Your task to perform on an android device: open app "Skype" (install if not already installed) Image 0: 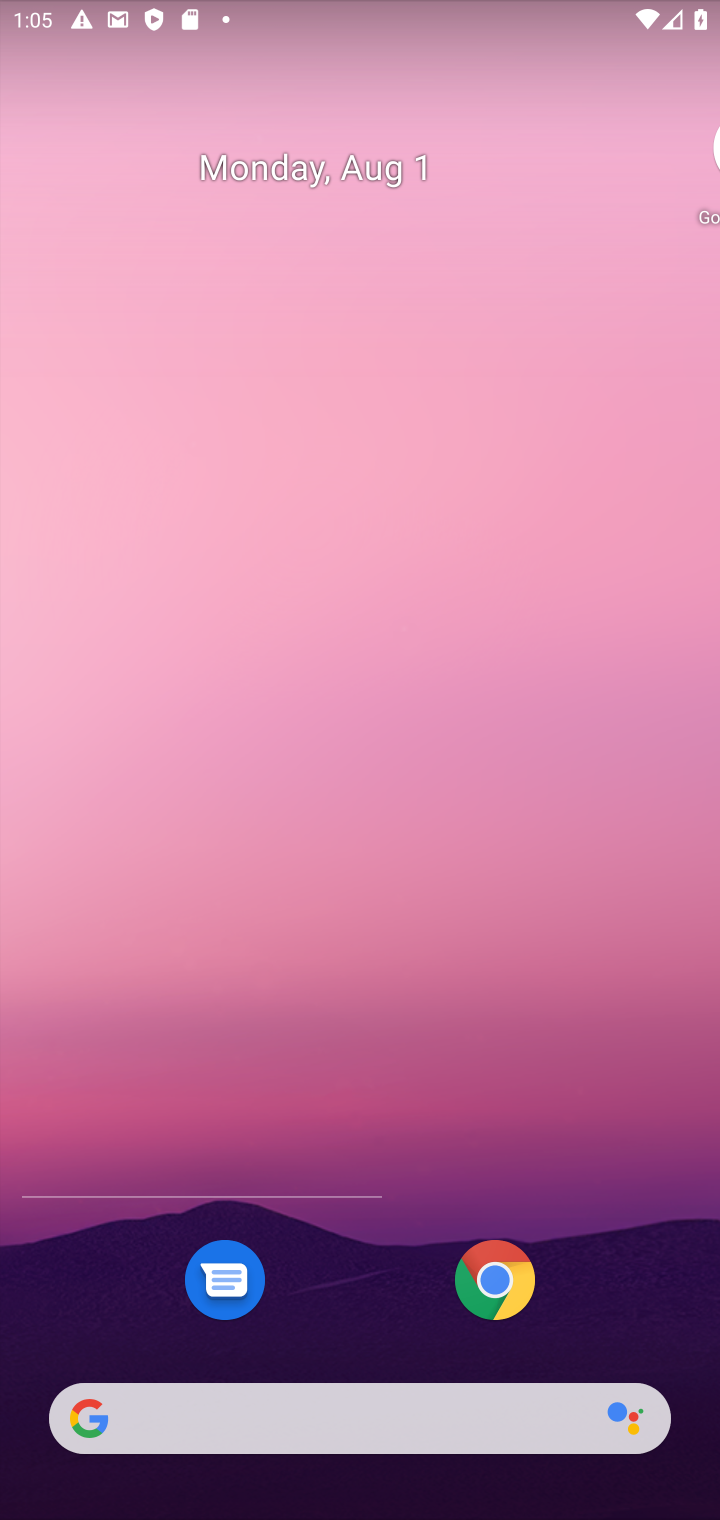
Step 0: press home button
Your task to perform on an android device: open app "Skype" (install if not already installed) Image 1: 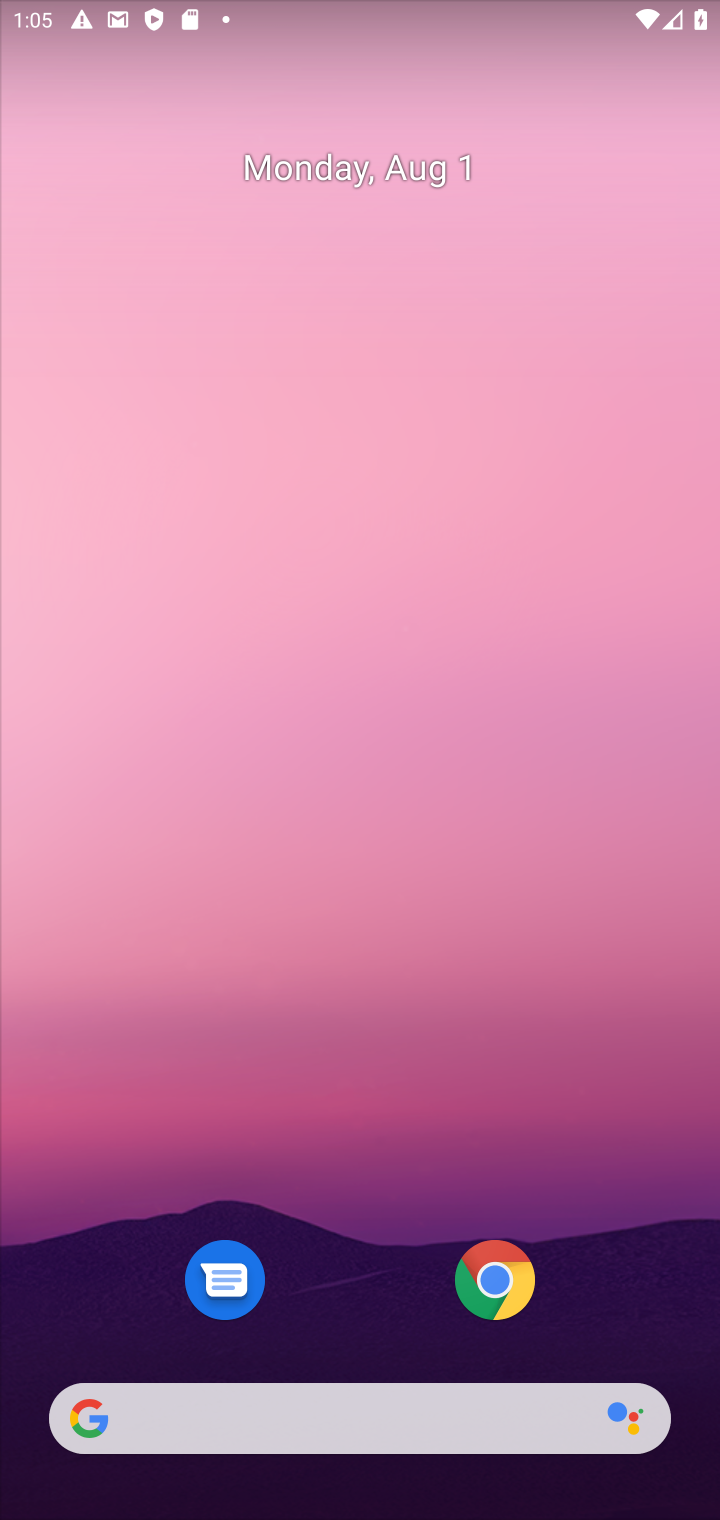
Step 1: drag from (395, 1032) to (460, 116)
Your task to perform on an android device: open app "Skype" (install if not already installed) Image 2: 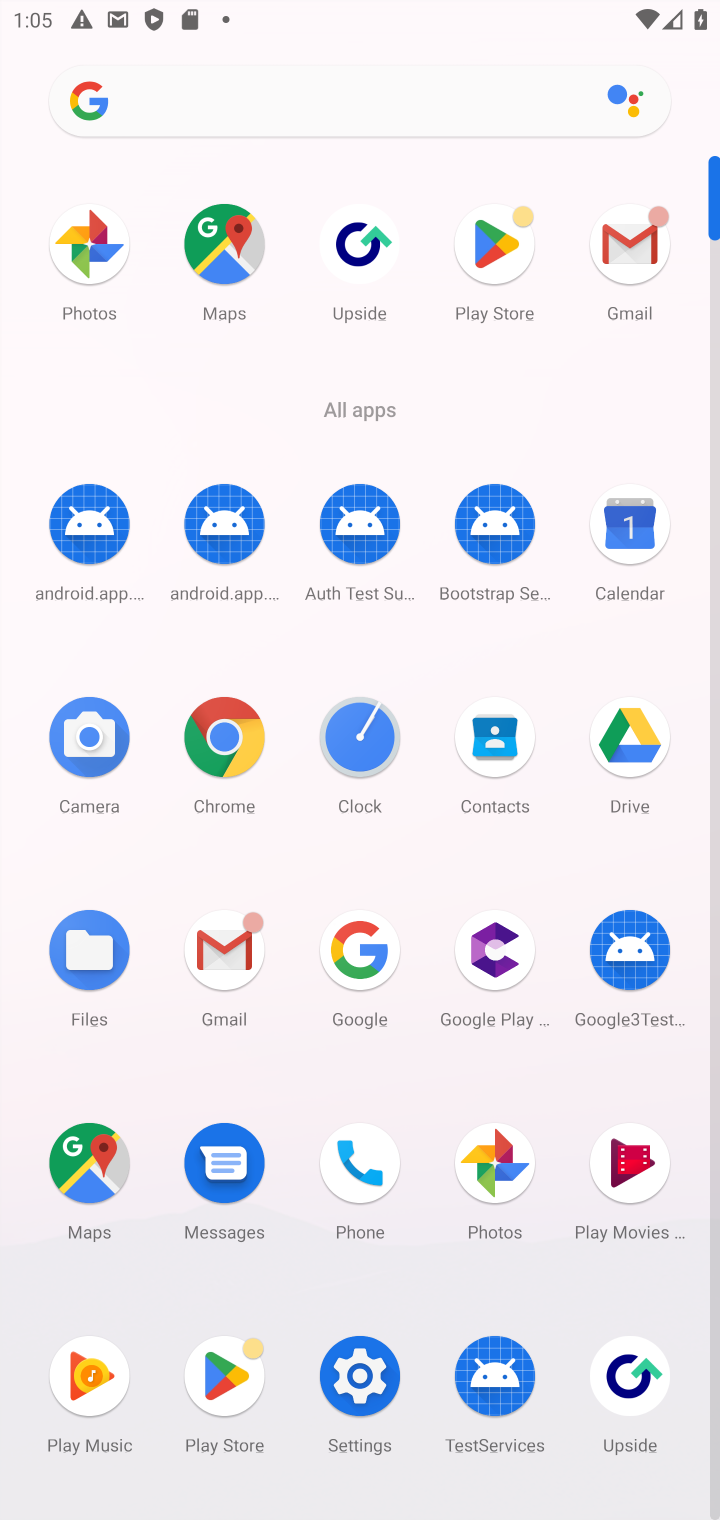
Step 2: click (498, 255)
Your task to perform on an android device: open app "Skype" (install if not already installed) Image 3: 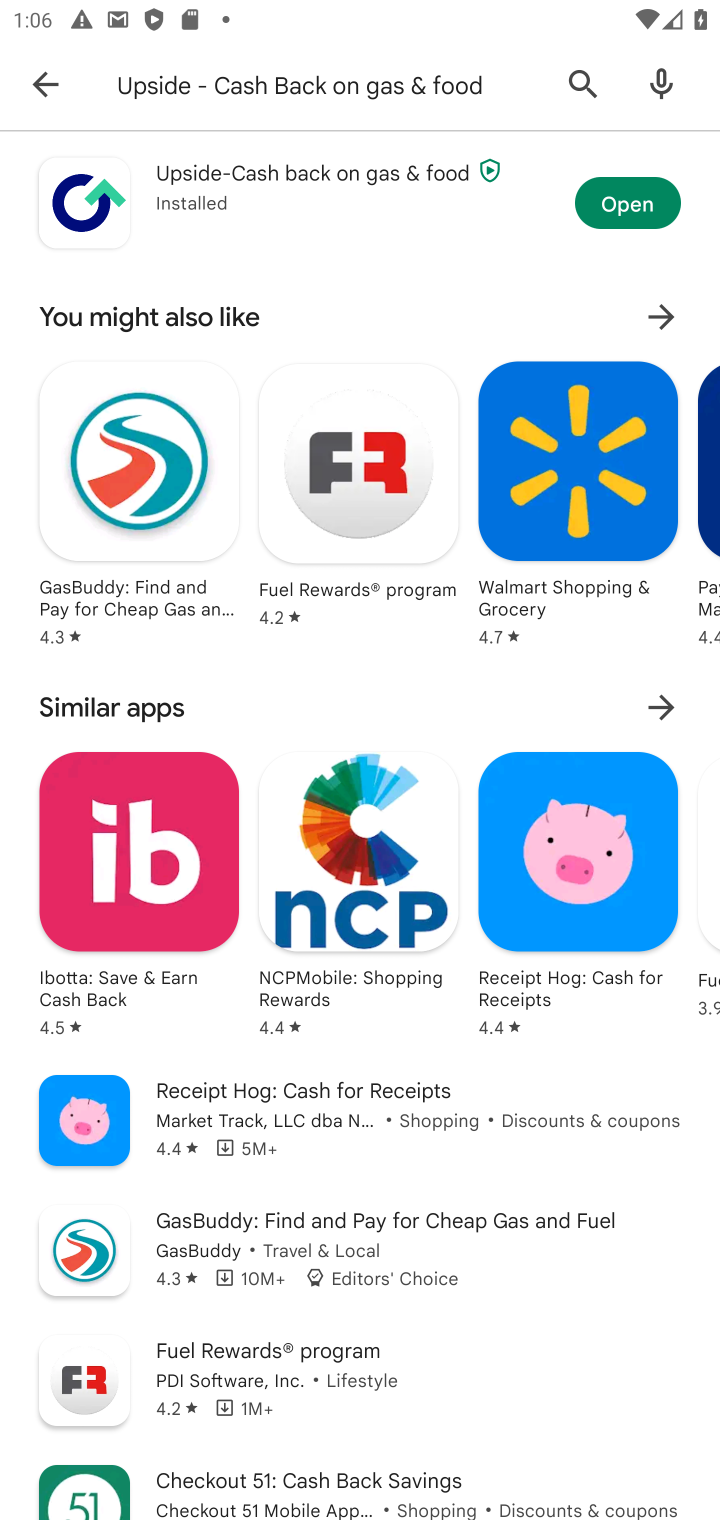
Step 3: press home button
Your task to perform on an android device: open app "Skype" (install if not already installed) Image 4: 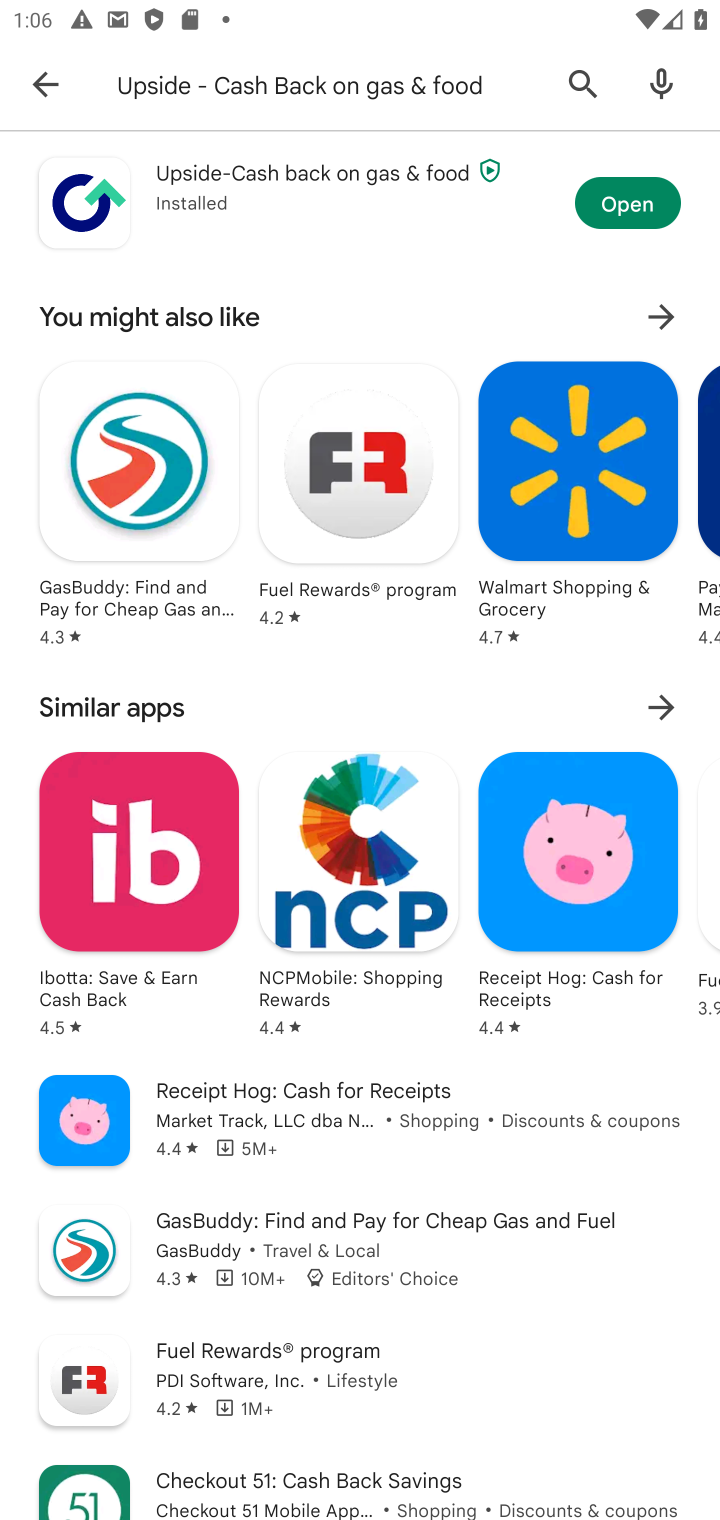
Step 4: press home button
Your task to perform on an android device: open app "Skype" (install if not already installed) Image 5: 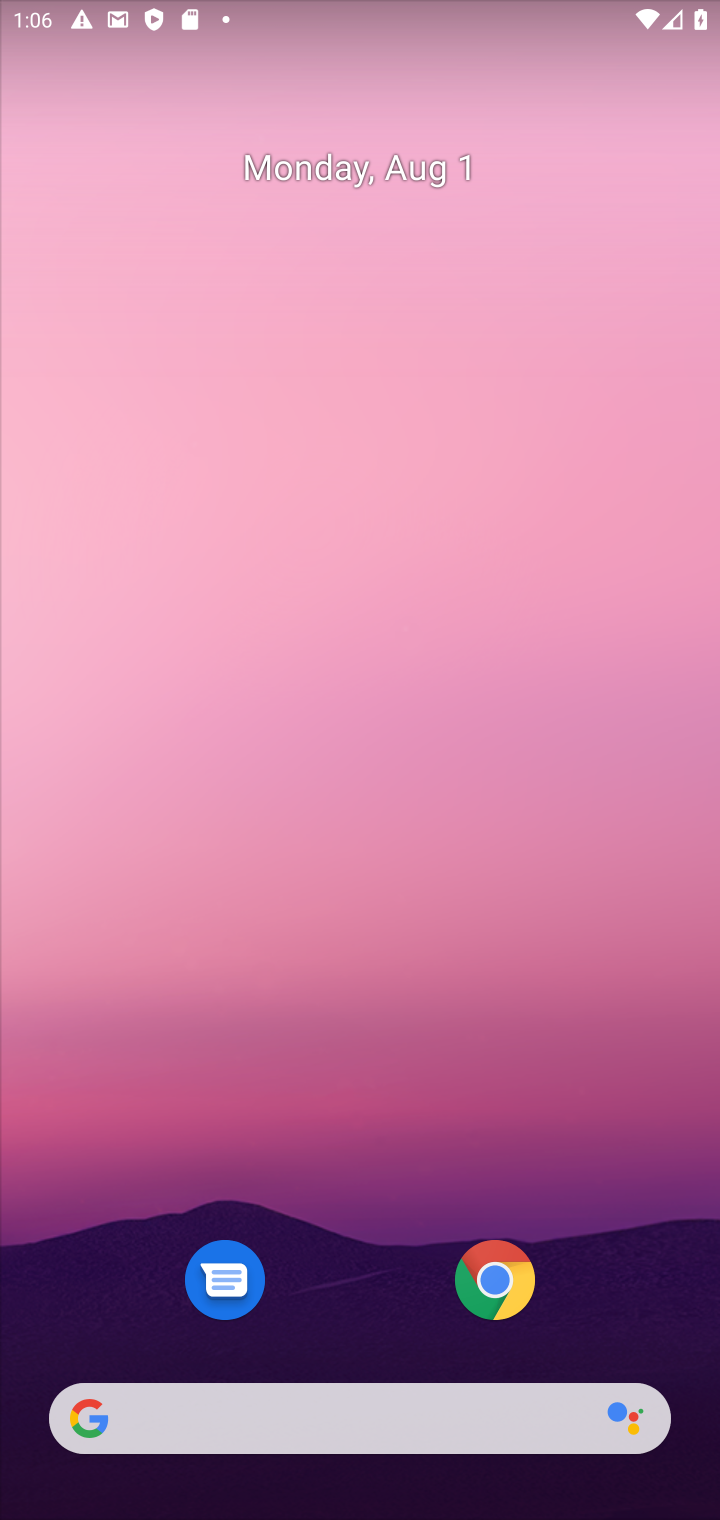
Step 5: drag from (441, 708) to (519, 1)
Your task to perform on an android device: open app "Skype" (install if not already installed) Image 6: 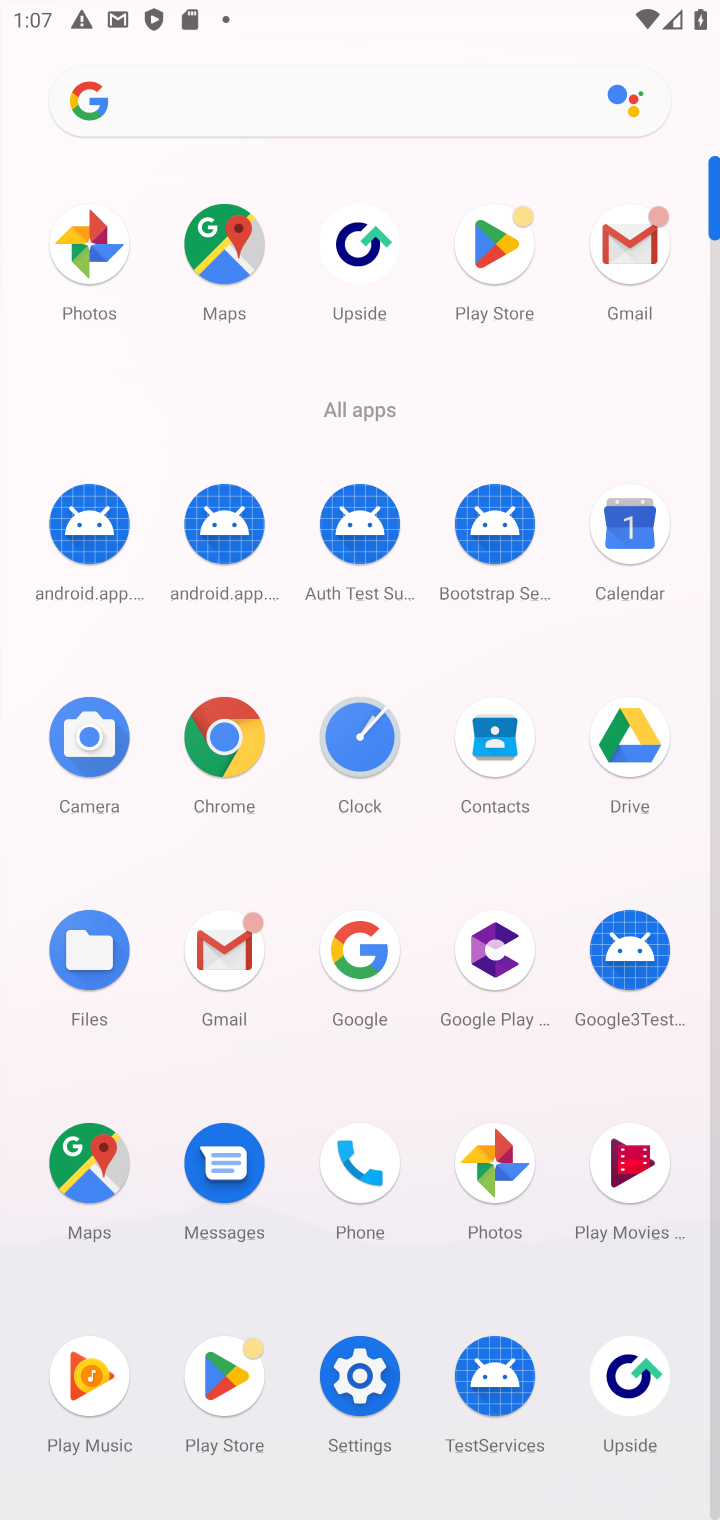
Step 6: click (487, 254)
Your task to perform on an android device: open app "Skype" (install if not already installed) Image 7: 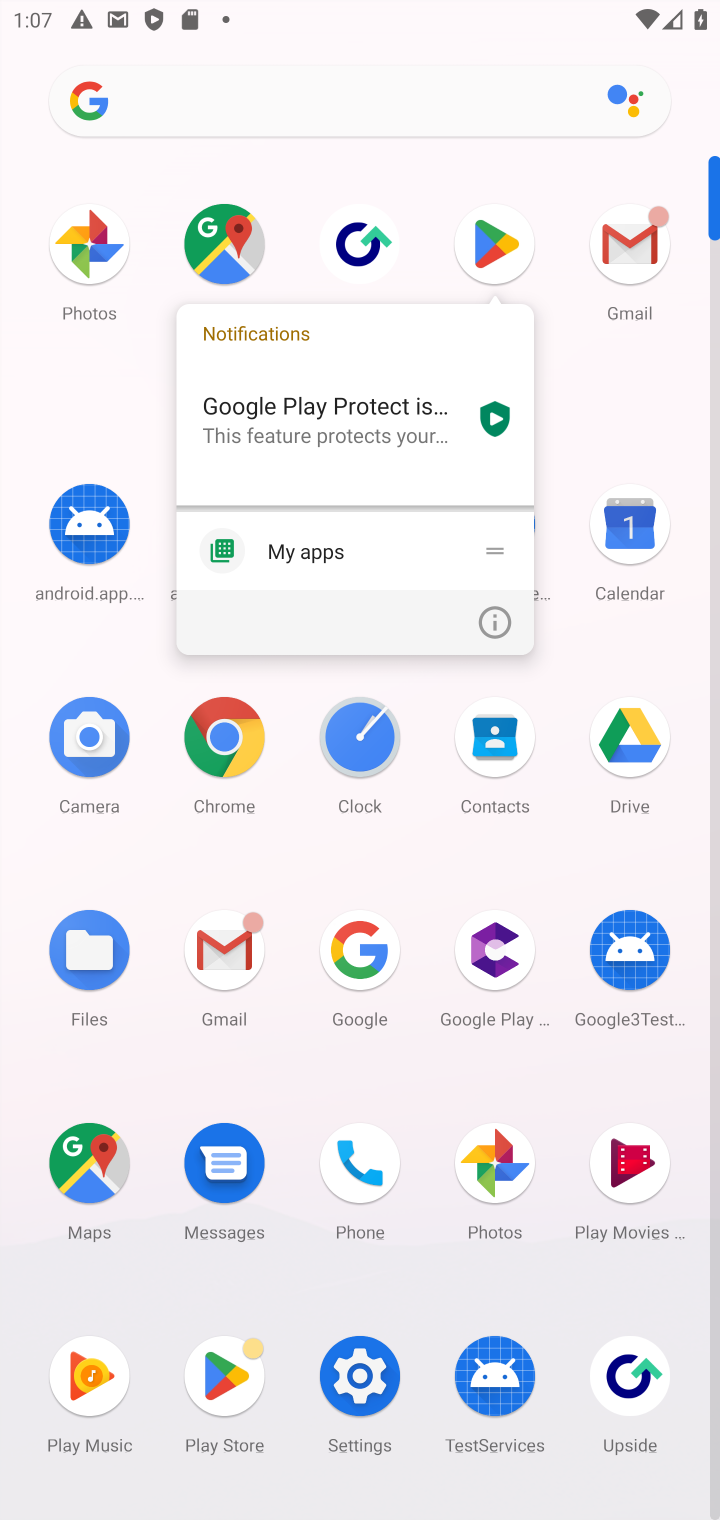
Step 7: click (472, 240)
Your task to perform on an android device: open app "Skype" (install if not already installed) Image 8: 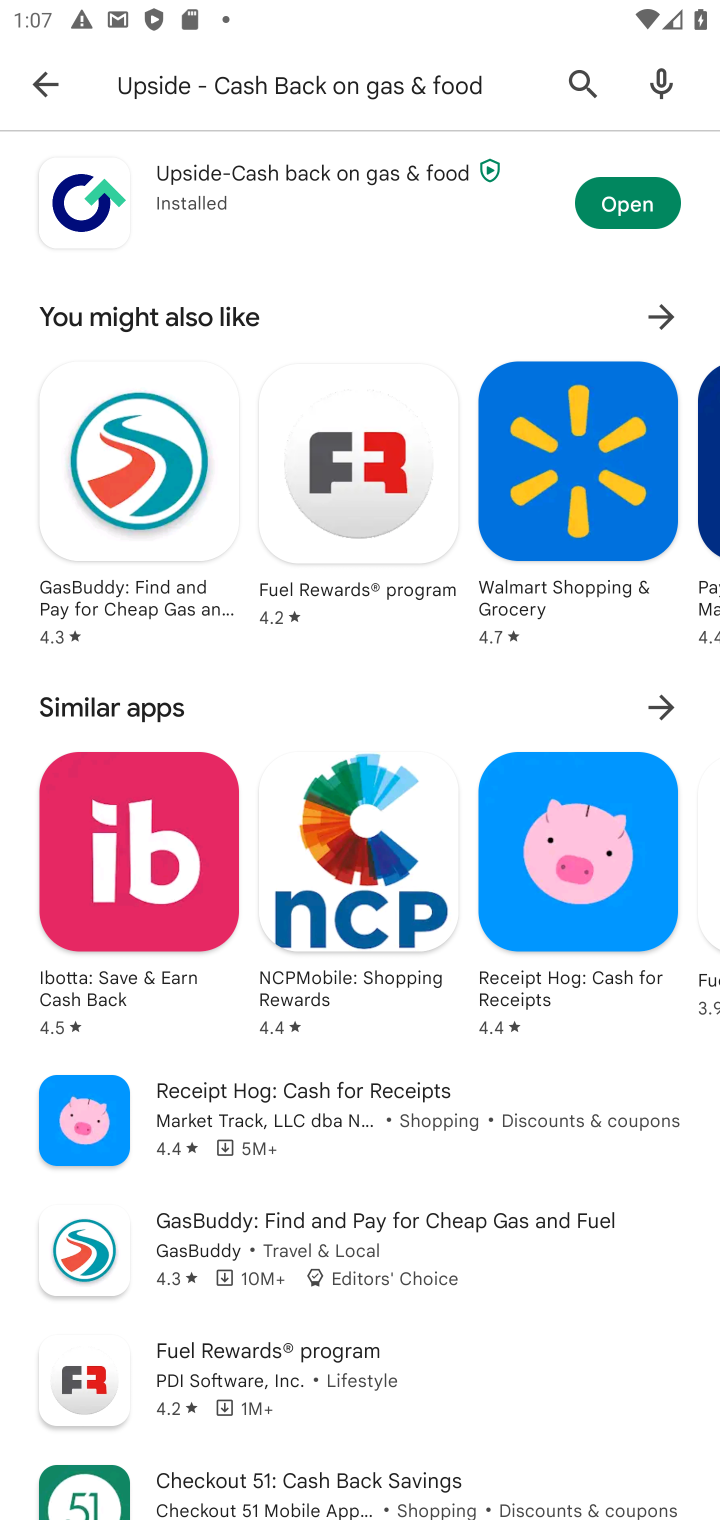
Step 8: click (377, 63)
Your task to perform on an android device: open app "Skype" (install if not already installed) Image 9: 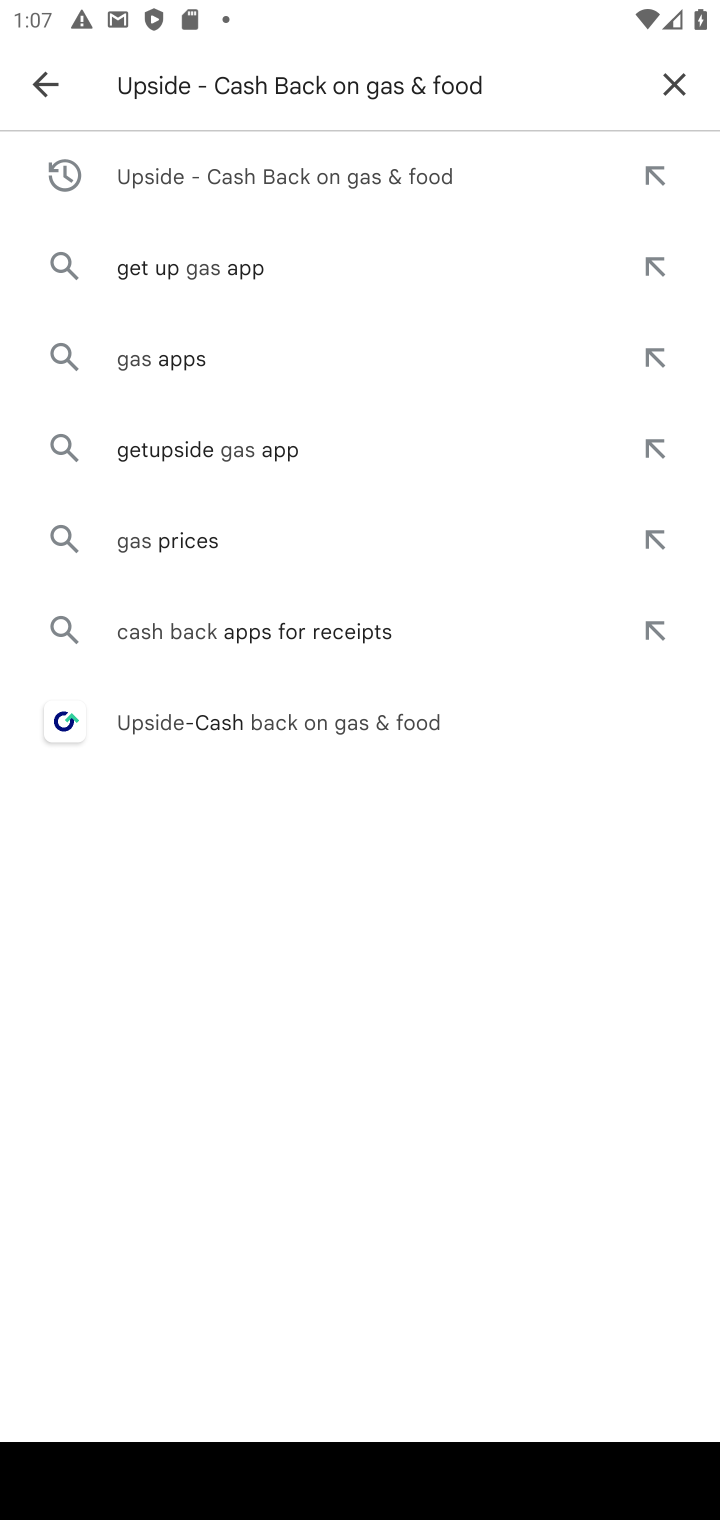
Step 9: click (637, 84)
Your task to perform on an android device: open app "Skype" (install if not already installed) Image 10: 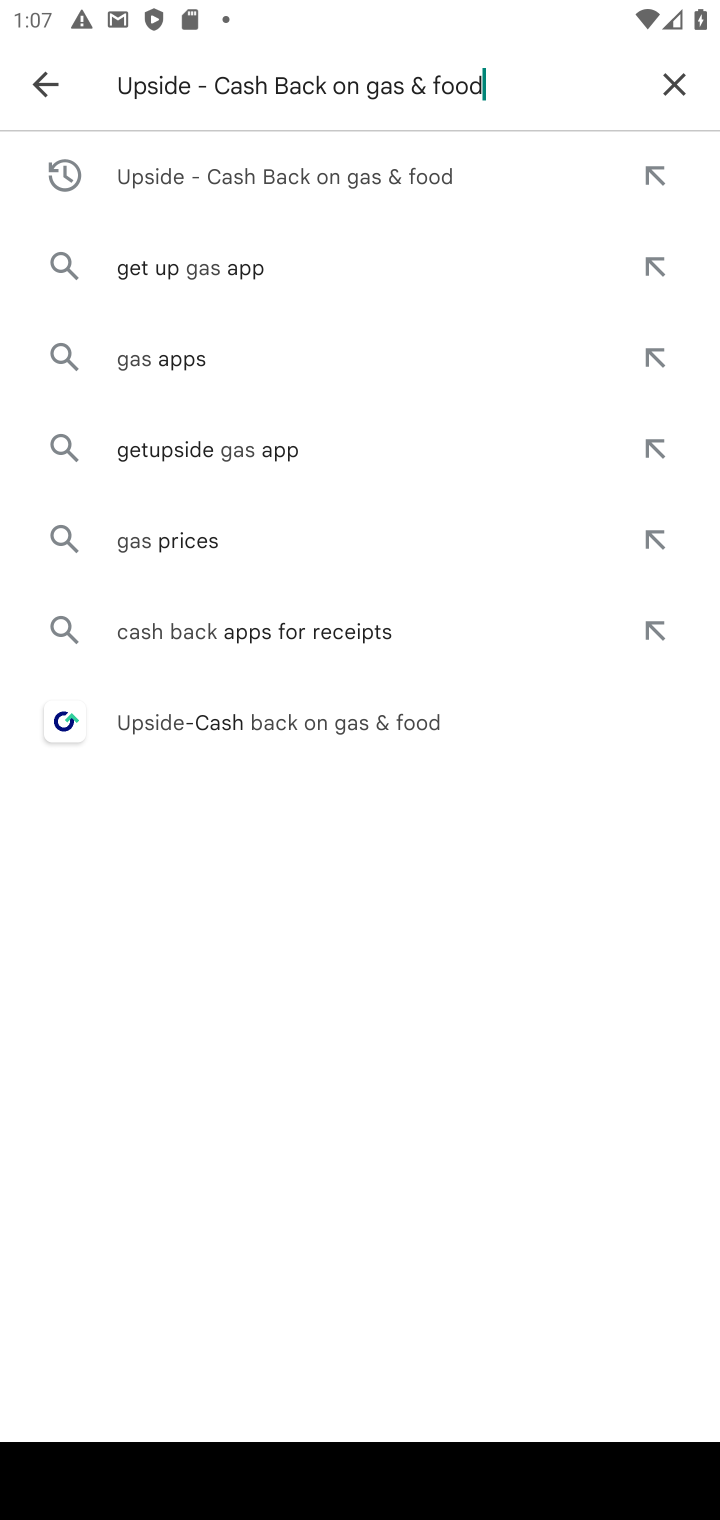
Step 10: click (688, 73)
Your task to perform on an android device: open app "Skype" (install if not already installed) Image 11: 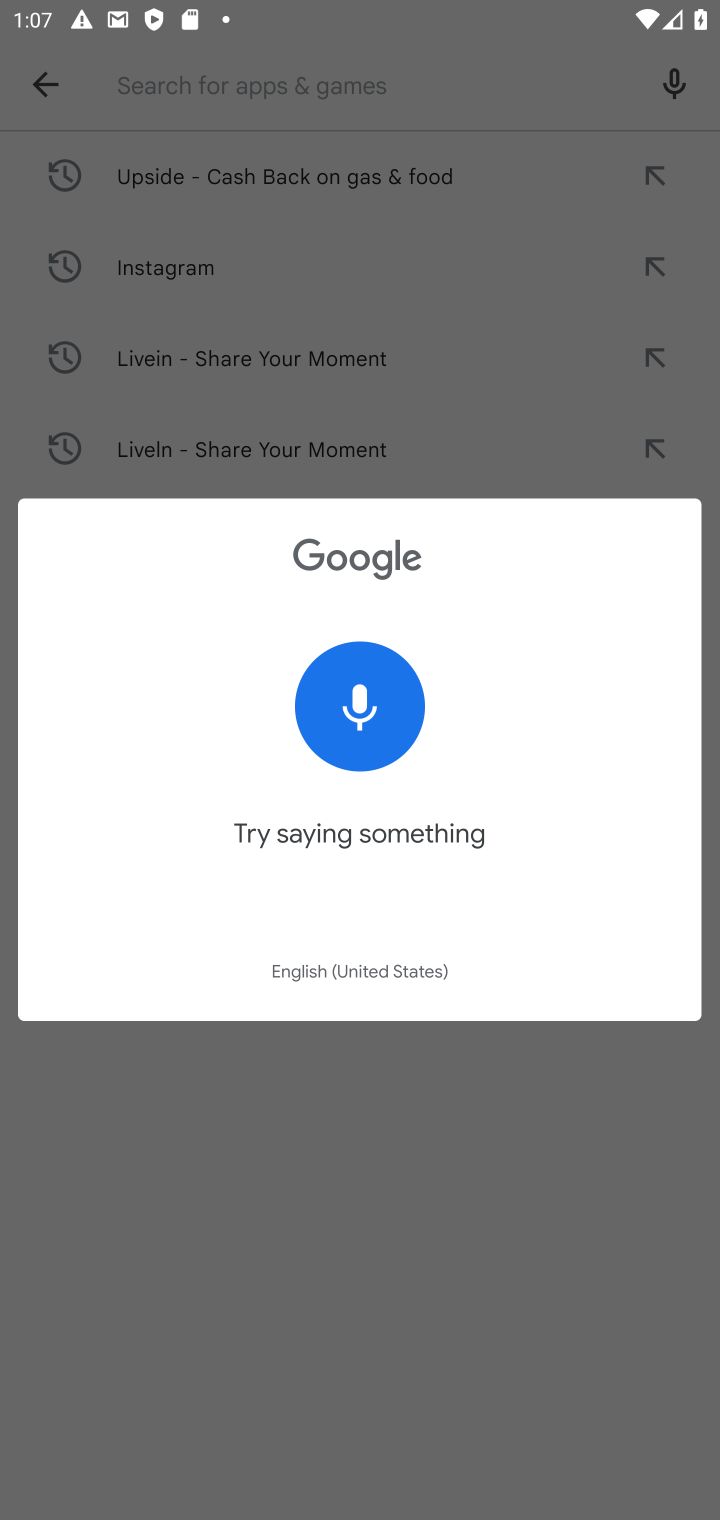
Step 11: click (288, 357)
Your task to perform on an android device: open app "Skype" (install if not already installed) Image 12: 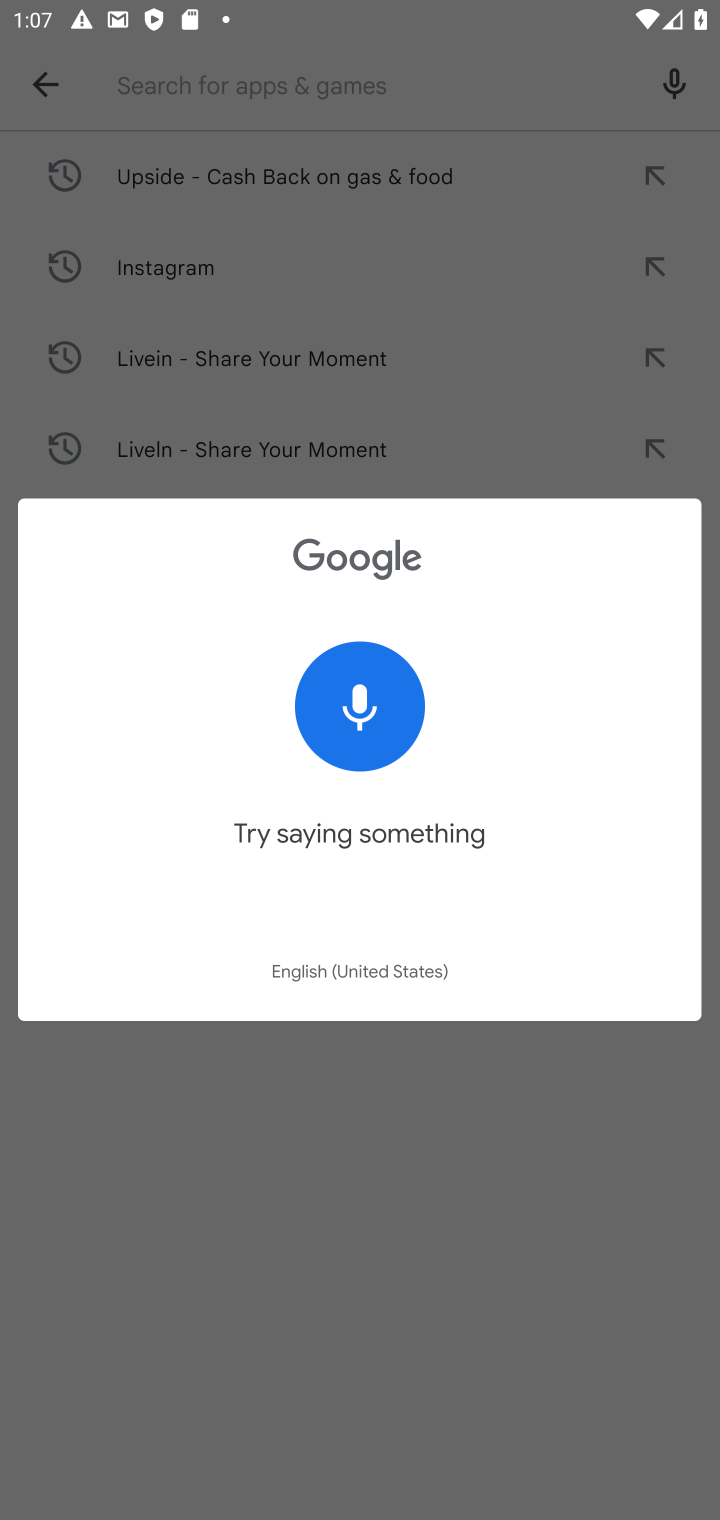
Step 12: click (325, 80)
Your task to perform on an android device: open app "Skype" (install if not already installed) Image 13: 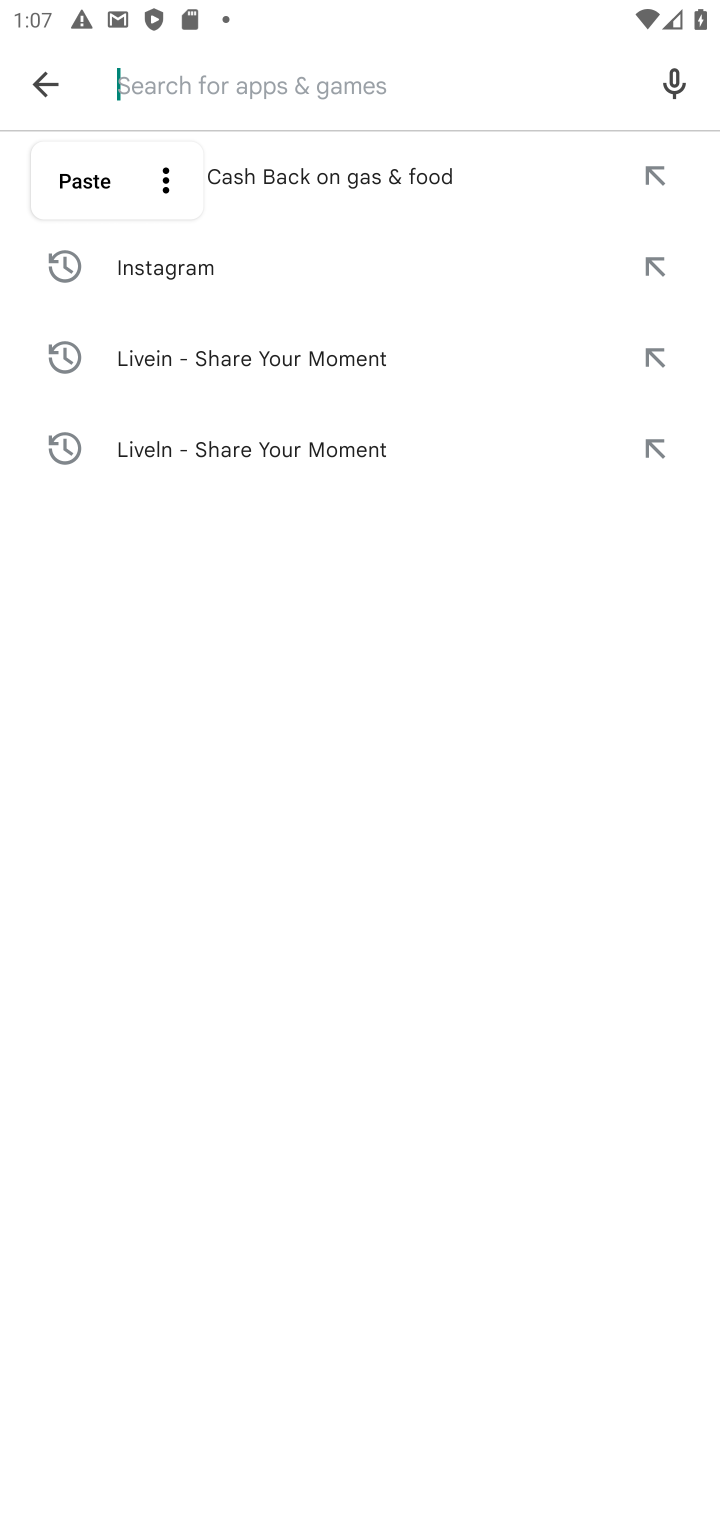
Step 13: type "Skype"
Your task to perform on an android device: open app "Skype" (install if not already installed) Image 14: 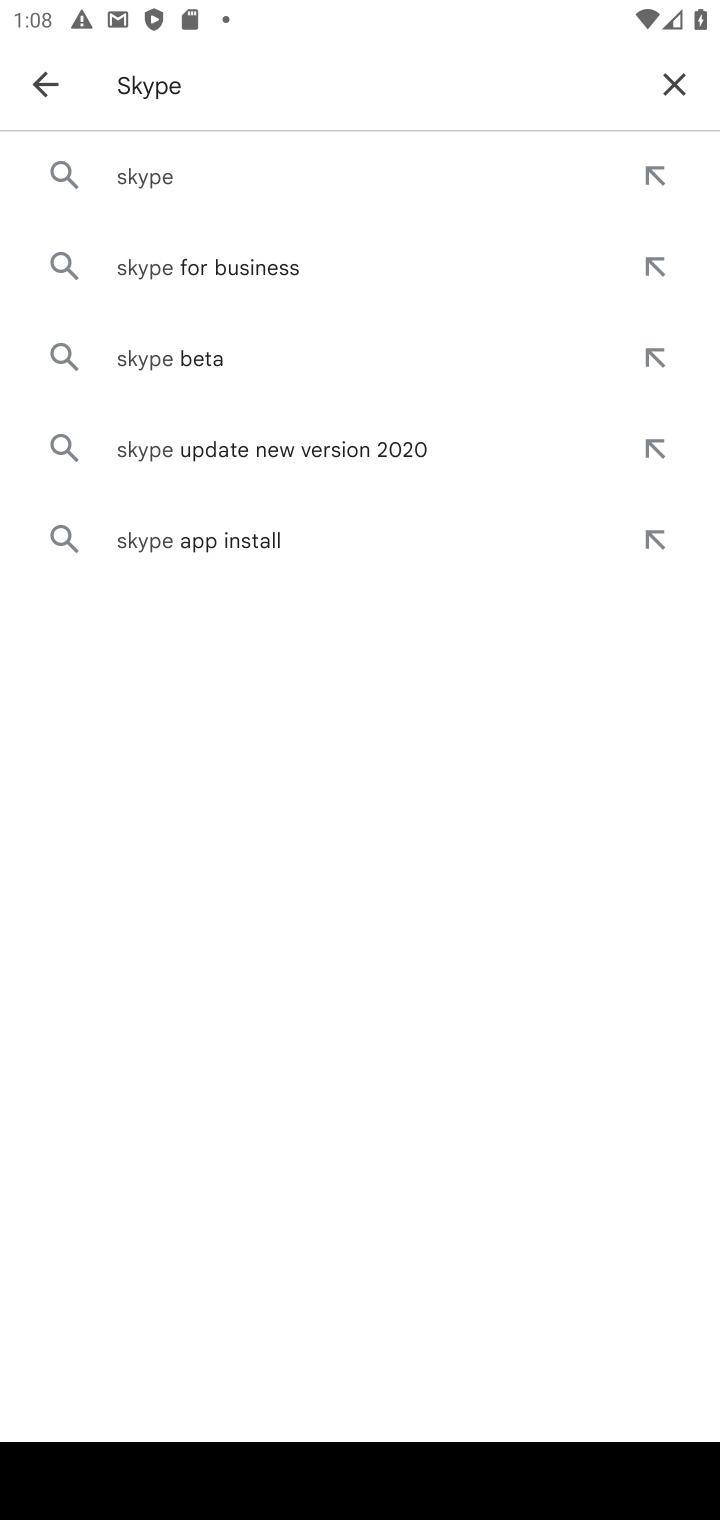
Step 14: press enter
Your task to perform on an android device: open app "Skype" (install if not already installed) Image 15: 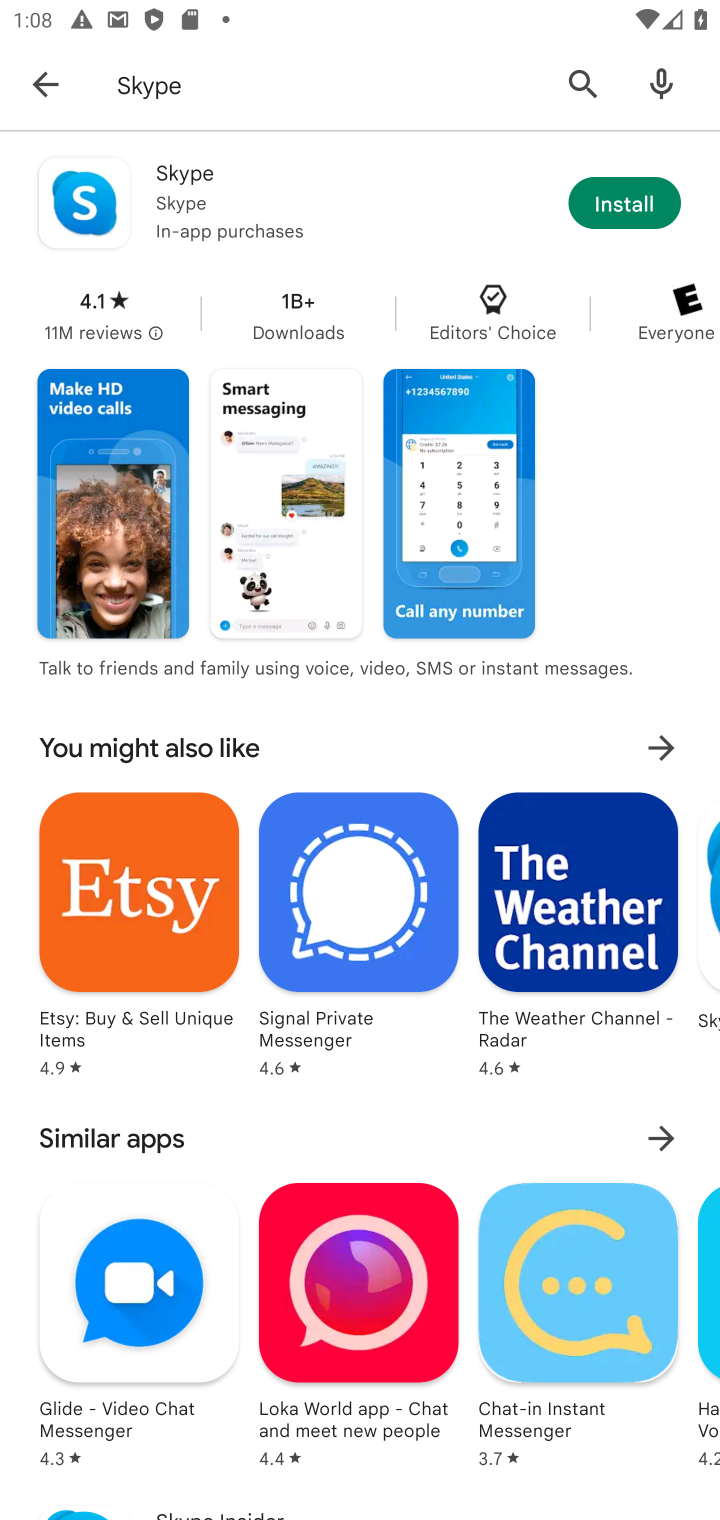
Step 15: click (643, 204)
Your task to perform on an android device: open app "Skype" (install if not already installed) Image 16: 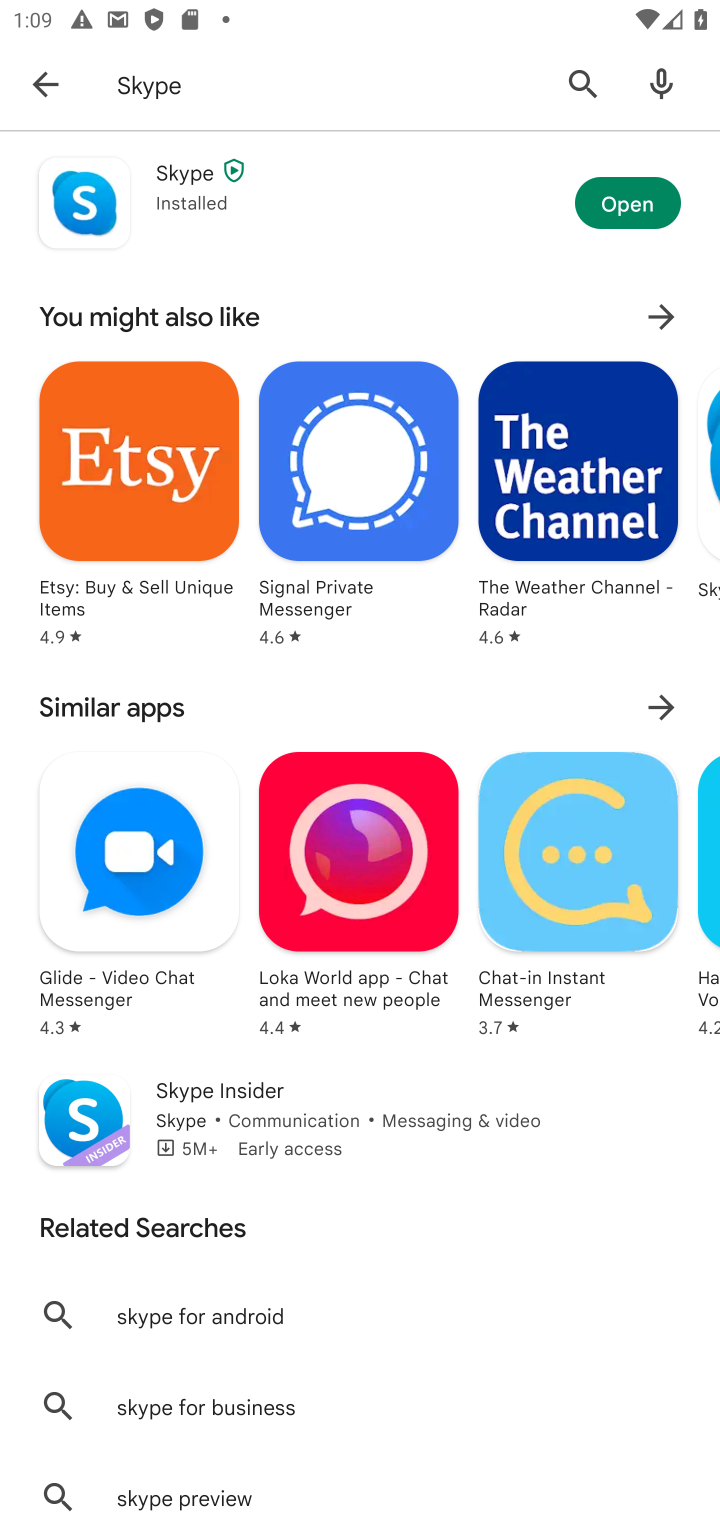
Step 16: click (637, 194)
Your task to perform on an android device: open app "Skype" (install if not already installed) Image 17: 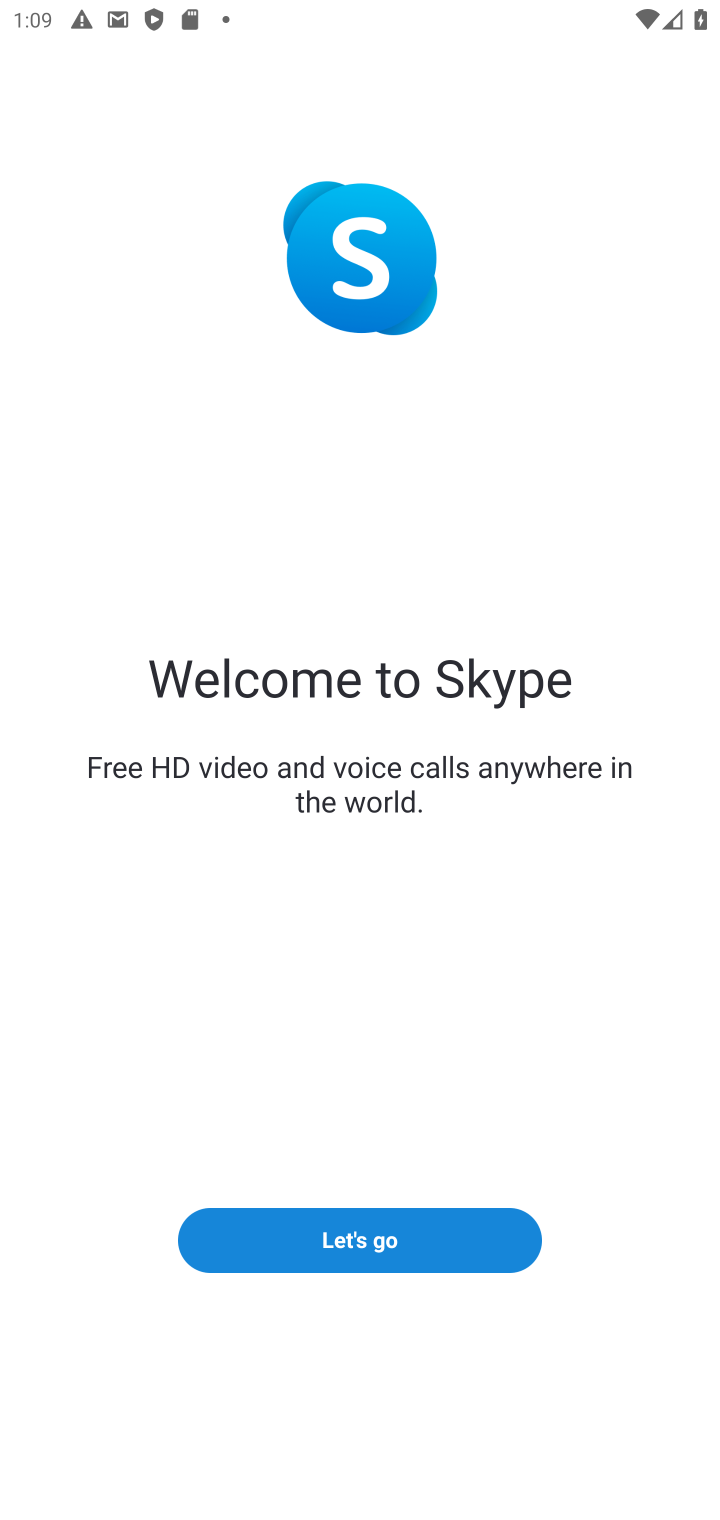
Step 17: task complete